Your task to perform on an android device: turn on priority inbox in the gmail app Image 0: 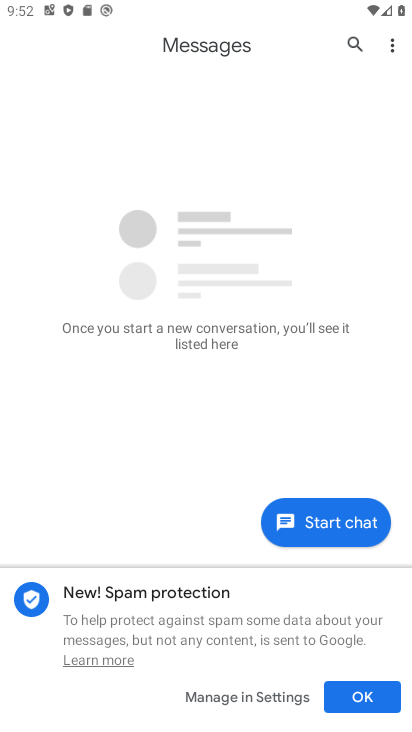
Step 0: press home button
Your task to perform on an android device: turn on priority inbox in the gmail app Image 1: 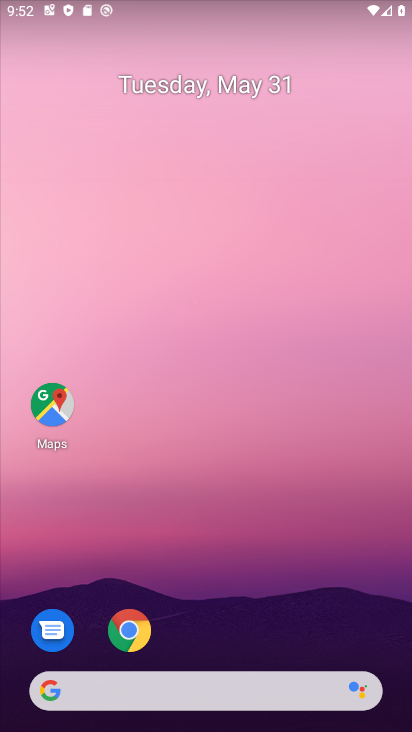
Step 1: drag from (229, 605) to (229, 119)
Your task to perform on an android device: turn on priority inbox in the gmail app Image 2: 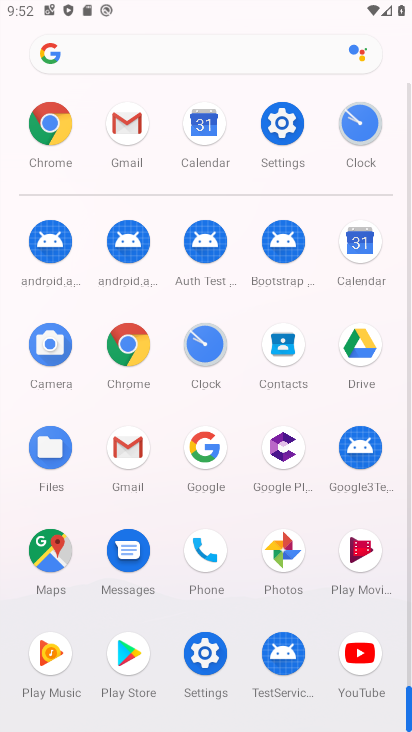
Step 2: click (128, 464)
Your task to perform on an android device: turn on priority inbox in the gmail app Image 3: 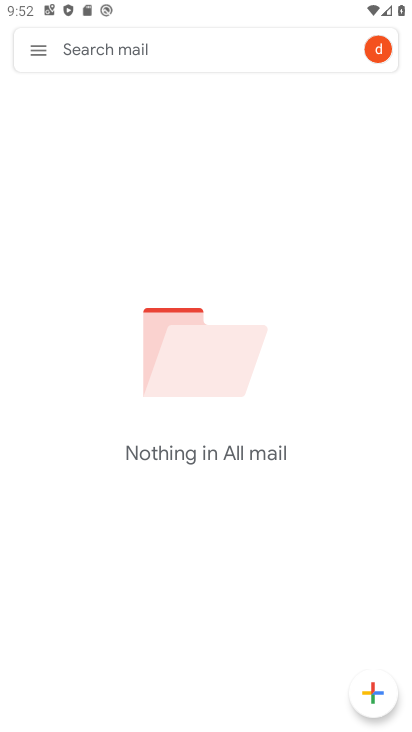
Step 3: click (35, 52)
Your task to perform on an android device: turn on priority inbox in the gmail app Image 4: 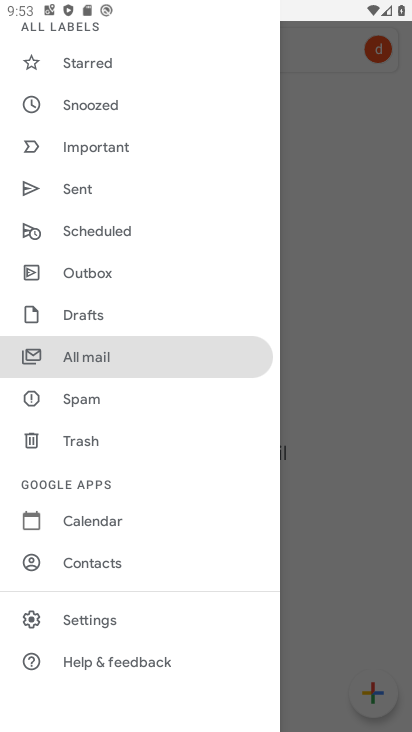
Step 4: click (106, 622)
Your task to perform on an android device: turn on priority inbox in the gmail app Image 5: 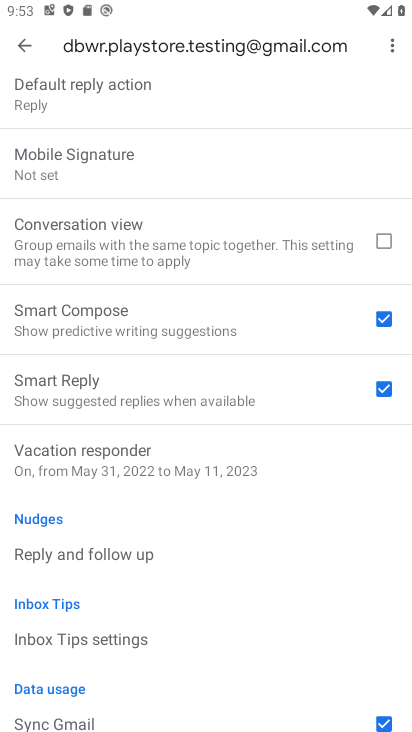
Step 5: drag from (107, 309) to (121, 598)
Your task to perform on an android device: turn on priority inbox in the gmail app Image 6: 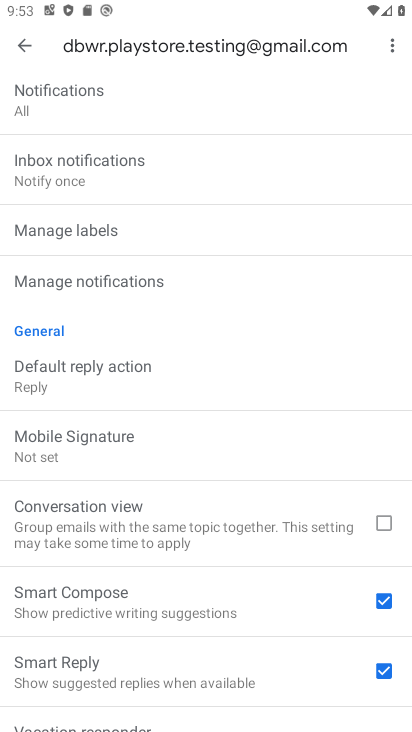
Step 6: drag from (135, 252) to (137, 630)
Your task to perform on an android device: turn on priority inbox in the gmail app Image 7: 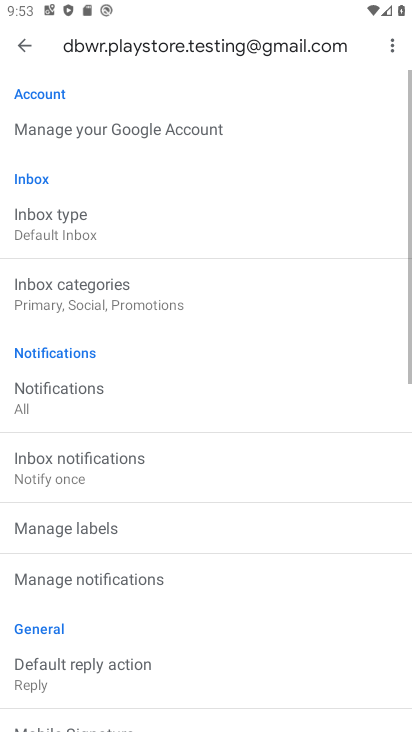
Step 7: drag from (133, 245) to (138, 601)
Your task to perform on an android device: turn on priority inbox in the gmail app Image 8: 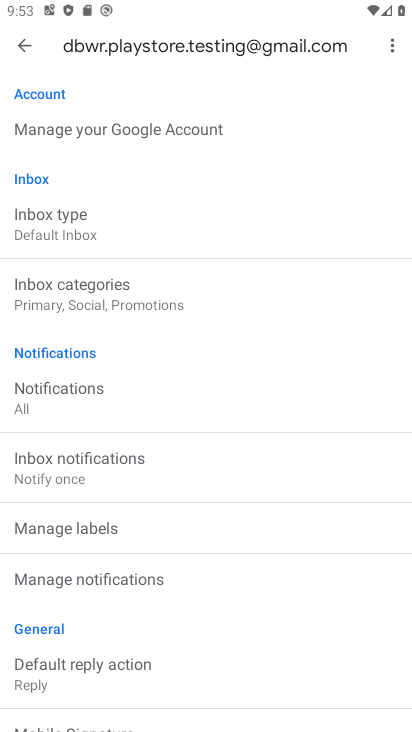
Step 8: click (83, 221)
Your task to perform on an android device: turn on priority inbox in the gmail app Image 9: 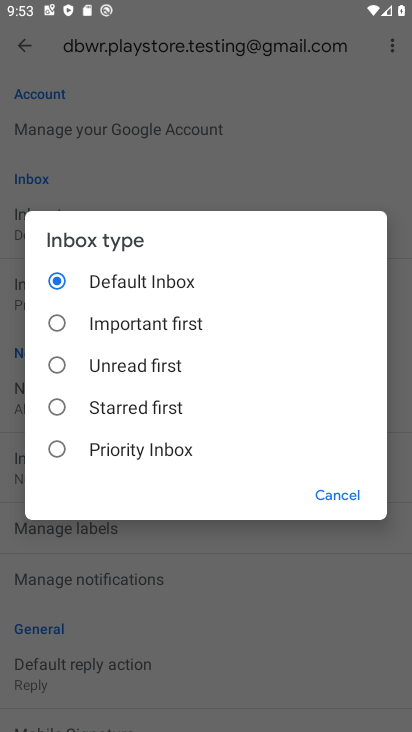
Step 9: click (121, 441)
Your task to perform on an android device: turn on priority inbox in the gmail app Image 10: 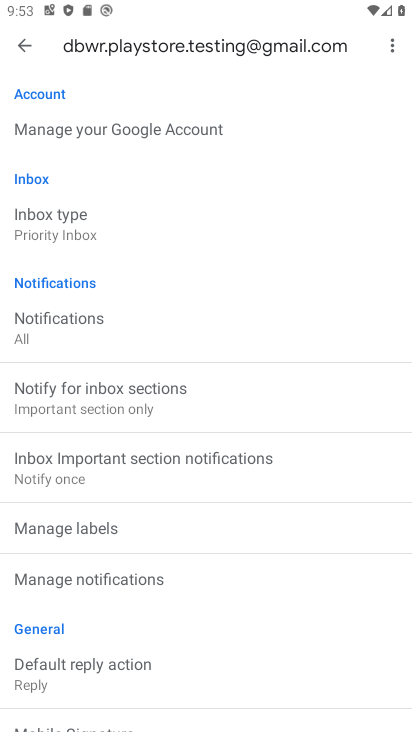
Step 10: task complete